Your task to perform on an android device: What's the weather going to be this weekend? Image 0: 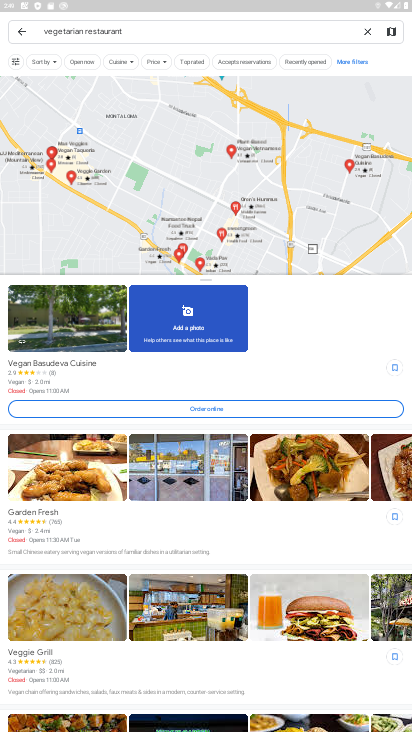
Step 0: press home button
Your task to perform on an android device: What's the weather going to be this weekend? Image 1: 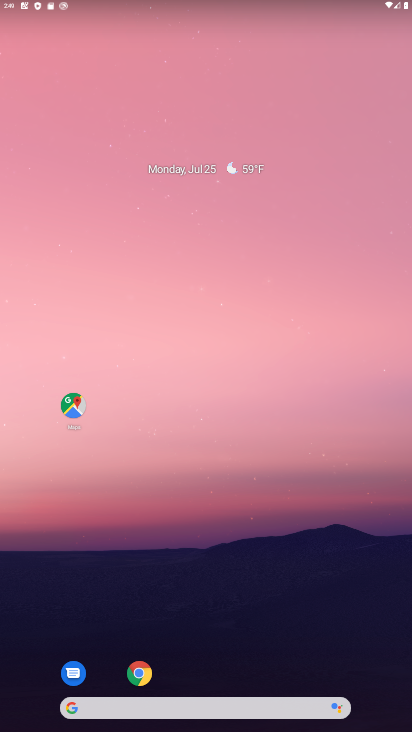
Step 1: drag from (221, 163) to (227, 127)
Your task to perform on an android device: What's the weather going to be this weekend? Image 2: 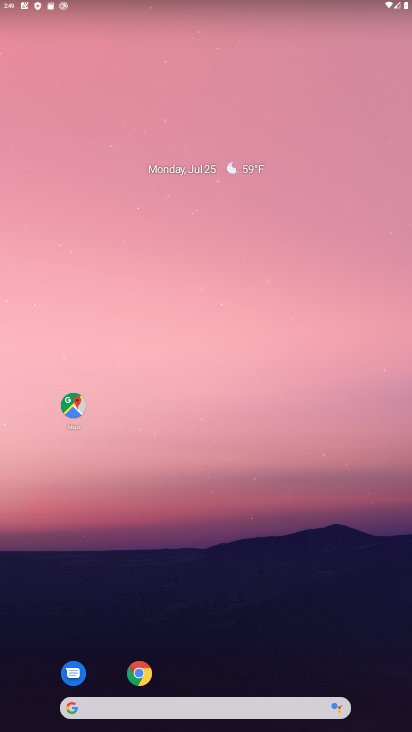
Step 2: click (133, 711)
Your task to perform on an android device: What's the weather going to be this weekend? Image 3: 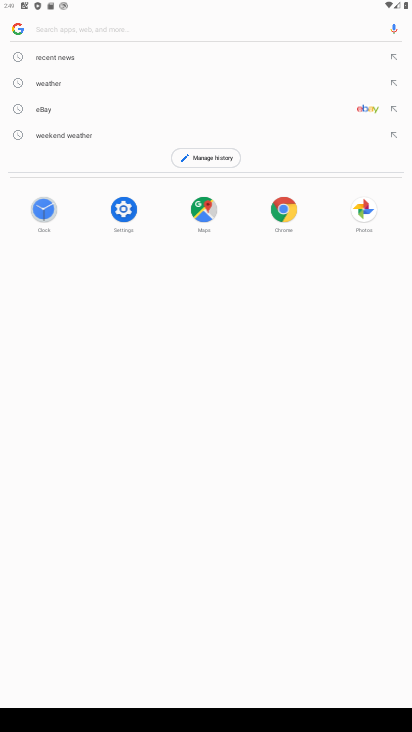
Step 3: click (51, 86)
Your task to perform on an android device: What's the weather going to be this weekend? Image 4: 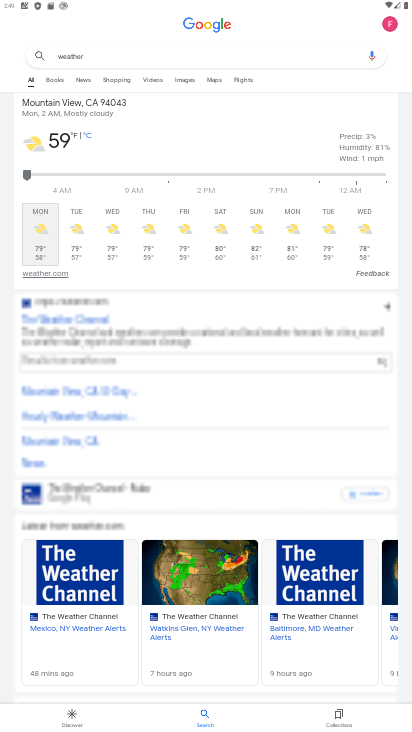
Step 4: task complete